Your task to perform on an android device: Search for "energizer triple a" on costco.com, select the first entry, add it to the cart, then select checkout. Image 0: 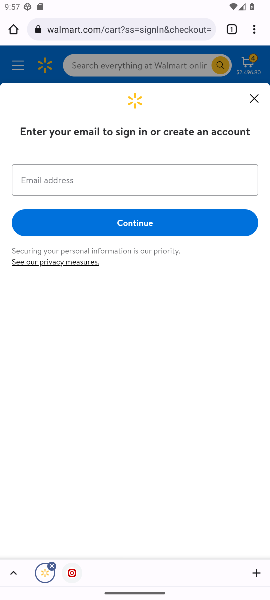
Step 0: click (142, 29)
Your task to perform on an android device: Search for "energizer triple a" on costco.com, select the first entry, add it to the cart, then select checkout. Image 1: 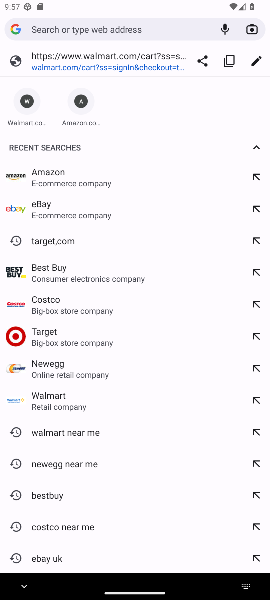
Step 1: click (55, 306)
Your task to perform on an android device: Search for "energizer triple a" on costco.com, select the first entry, add it to the cart, then select checkout. Image 2: 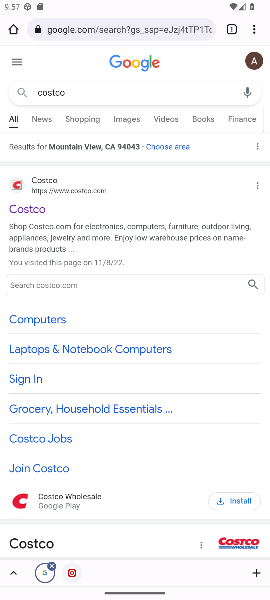
Step 2: click (34, 210)
Your task to perform on an android device: Search for "energizer triple a" on costco.com, select the first entry, add it to the cart, then select checkout. Image 3: 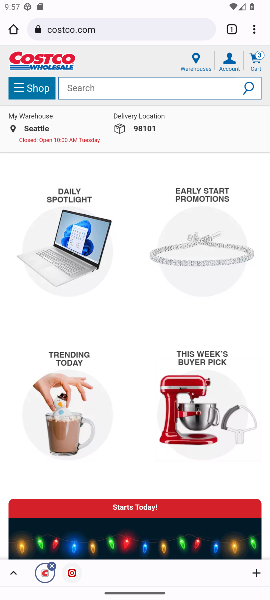
Step 3: click (85, 86)
Your task to perform on an android device: Search for "energizer triple a" on costco.com, select the first entry, add it to the cart, then select checkout. Image 4: 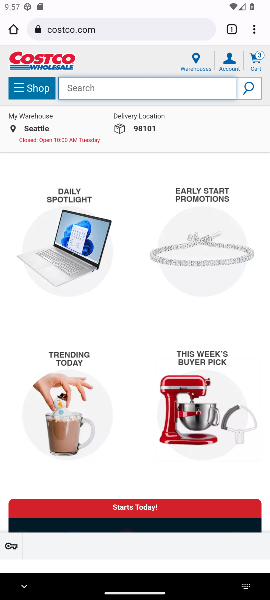
Step 4: type "energizer triple"
Your task to perform on an android device: Search for "energizer triple a" on costco.com, select the first entry, add it to the cart, then select checkout. Image 5: 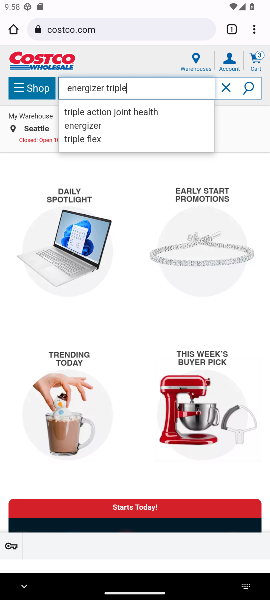
Step 5: click (92, 132)
Your task to perform on an android device: Search for "energizer triple a" on costco.com, select the first entry, add it to the cart, then select checkout. Image 6: 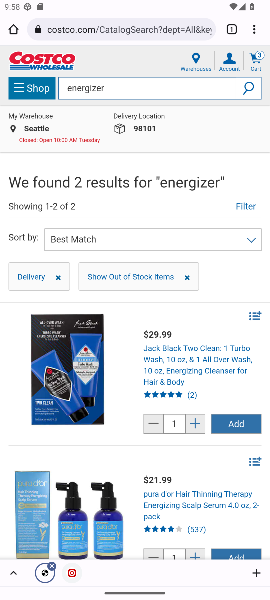
Step 6: drag from (85, 541) to (101, 252)
Your task to perform on an android device: Search for "energizer triple a" on costco.com, select the first entry, add it to the cart, then select checkout. Image 7: 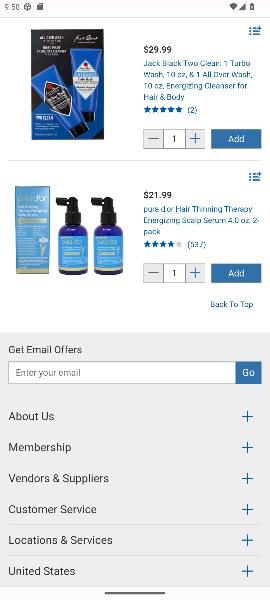
Step 7: click (98, 251)
Your task to perform on an android device: Search for "energizer triple a" on costco.com, select the first entry, add it to the cart, then select checkout. Image 8: 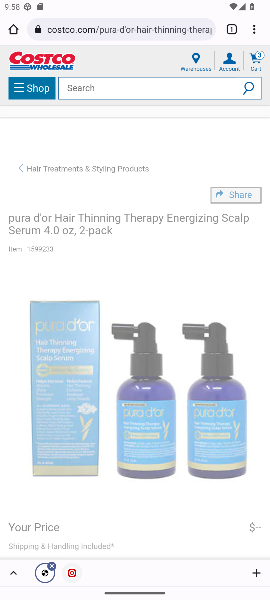
Step 8: click (113, 85)
Your task to perform on an android device: Search for "energizer triple a" on costco.com, select the first entry, add it to the cart, then select checkout. Image 9: 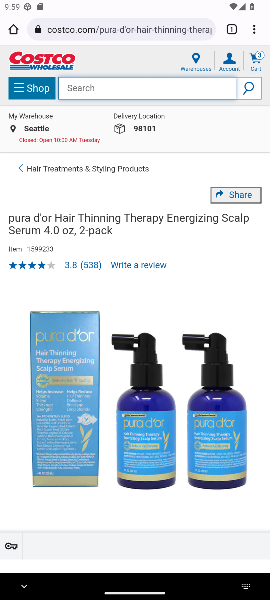
Step 9: type "energizer triple"
Your task to perform on an android device: Search for "energizer triple a" on costco.com, select the first entry, add it to the cart, then select checkout. Image 10: 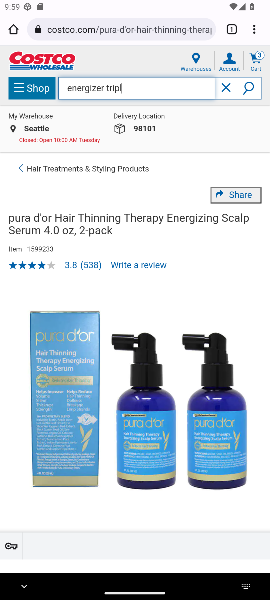
Step 10: type ""
Your task to perform on an android device: Search for "energizer triple a" on costco.com, select the first entry, add it to the cart, then select checkout. Image 11: 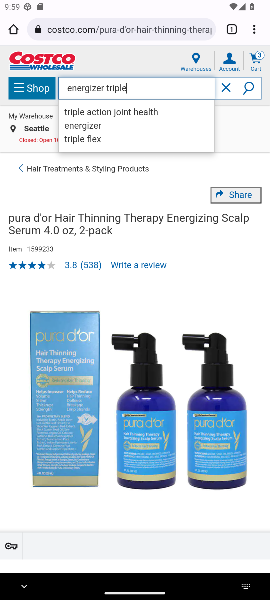
Step 11: click (85, 123)
Your task to perform on an android device: Search for "energizer triple a" on costco.com, select the first entry, add it to the cart, then select checkout. Image 12: 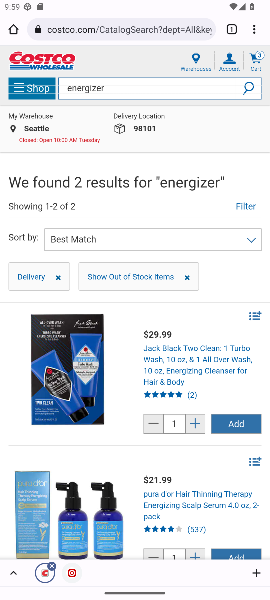
Step 12: drag from (123, 394) to (126, 106)
Your task to perform on an android device: Search for "energizer triple a" on costco.com, select the first entry, add it to the cart, then select checkout. Image 13: 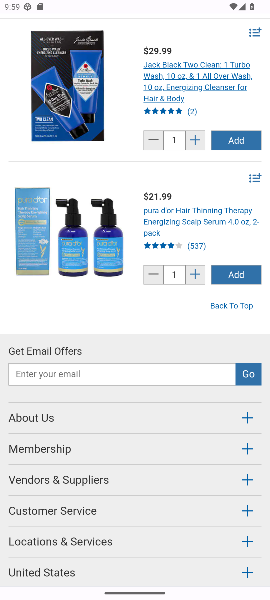
Step 13: drag from (141, 210) to (129, 594)
Your task to perform on an android device: Search for "energizer triple a" on costco.com, select the first entry, add it to the cart, then select checkout. Image 14: 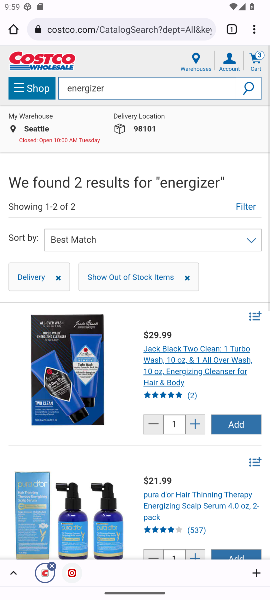
Step 14: click (122, 81)
Your task to perform on an android device: Search for "energizer triple a" on costco.com, select the first entry, add it to the cart, then select checkout. Image 15: 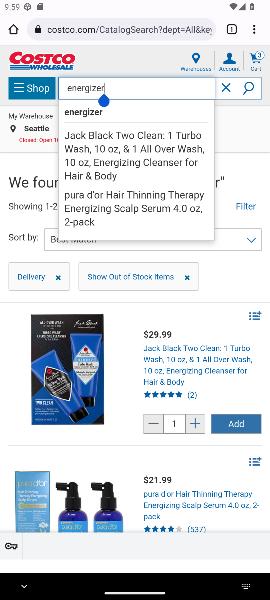
Step 15: click (225, 91)
Your task to perform on an android device: Search for "energizer triple a" on costco.com, select the first entry, add it to the cart, then select checkout. Image 16: 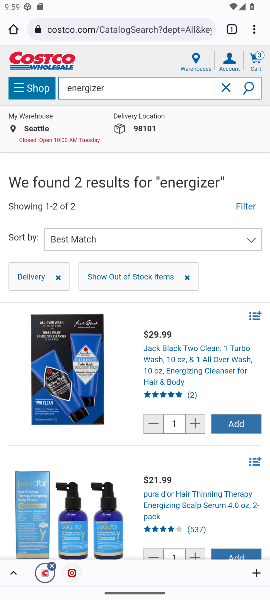
Step 16: click (223, 87)
Your task to perform on an android device: Search for "energizer triple a" on costco.com, select the first entry, add it to the cart, then select checkout. Image 17: 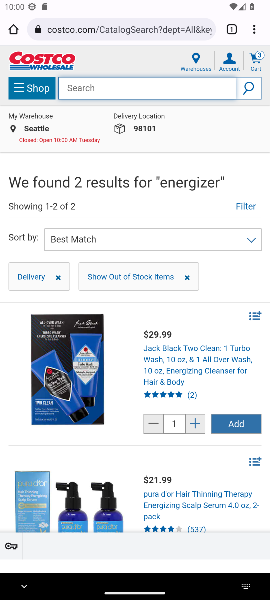
Step 17: type "energizer triple"
Your task to perform on an android device: Search for "energizer triple a" on costco.com, select the first entry, add it to the cart, then select checkout. Image 18: 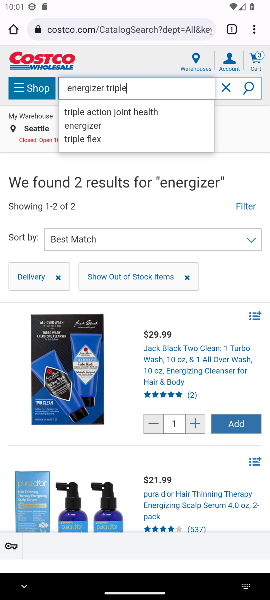
Step 18: click (194, 351)
Your task to perform on an android device: Search for "energizer triple a" on costco.com, select the first entry, add it to the cart, then select checkout. Image 19: 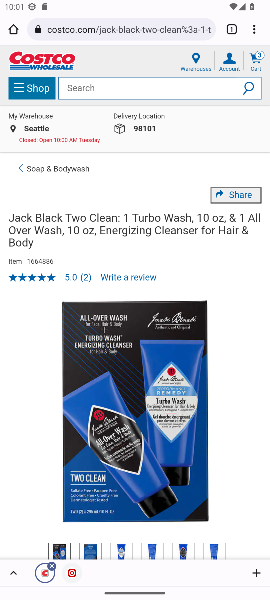
Step 19: drag from (157, 418) to (169, 225)
Your task to perform on an android device: Search for "energizer triple a" on costco.com, select the first entry, add it to the cart, then select checkout. Image 20: 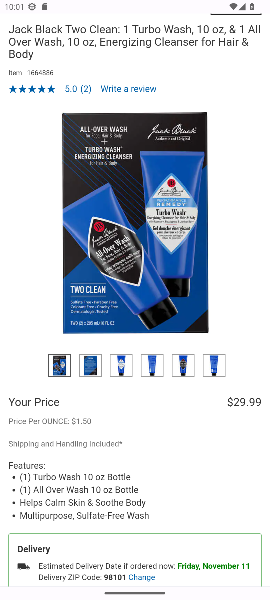
Step 20: drag from (140, 416) to (143, 29)
Your task to perform on an android device: Search for "energizer triple a" on costco.com, select the first entry, add it to the cart, then select checkout. Image 21: 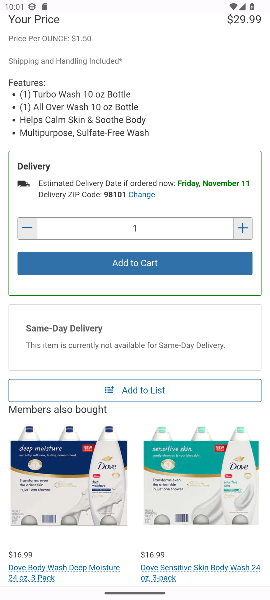
Step 21: click (144, 260)
Your task to perform on an android device: Search for "energizer triple a" on costco.com, select the first entry, add it to the cart, then select checkout. Image 22: 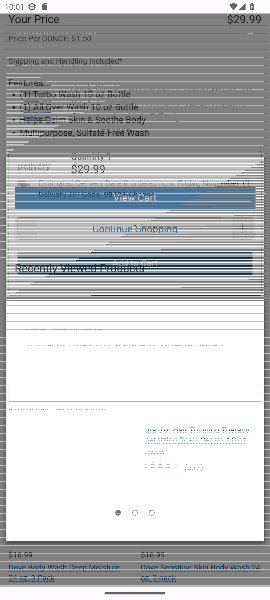
Step 22: click (130, 201)
Your task to perform on an android device: Search for "energizer triple a" on costco.com, select the first entry, add it to the cart, then select checkout. Image 23: 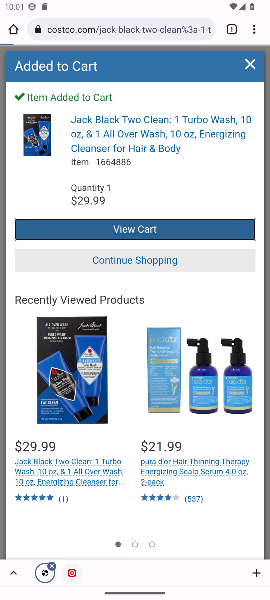
Step 23: click (134, 228)
Your task to perform on an android device: Search for "energizer triple a" on costco.com, select the first entry, add it to the cart, then select checkout. Image 24: 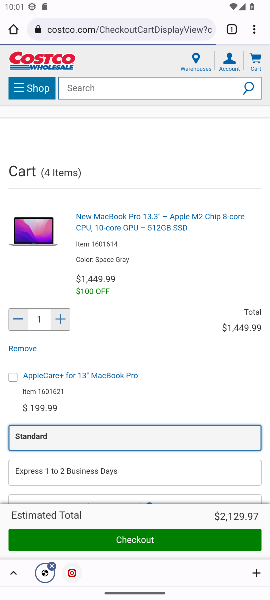
Step 24: click (134, 228)
Your task to perform on an android device: Search for "energizer triple a" on costco.com, select the first entry, add it to the cart, then select checkout. Image 25: 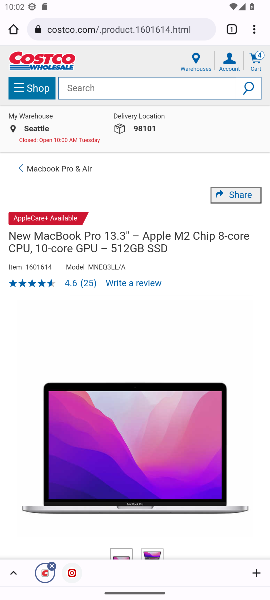
Step 25: drag from (154, 450) to (154, 277)
Your task to perform on an android device: Search for "energizer triple a" on costco.com, select the first entry, add it to the cart, then select checkout. Image 26: 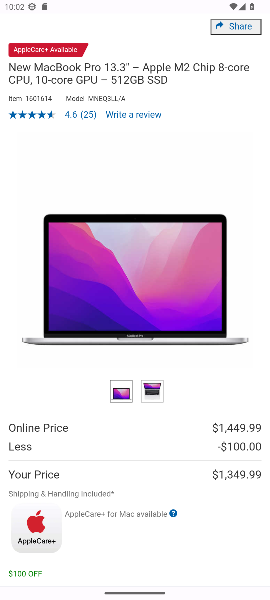
Step 26: drag from (104, 476) to (154, 127)
Your task to perform on an android device: Search for "energizer triple a" on costco.com, select the first entry, add it to the cart, then select checkout. Image 27: 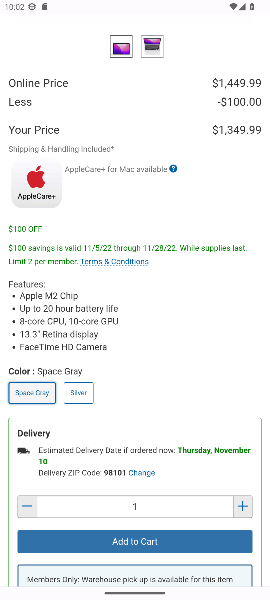
Step 27: click (150, 539)
Your task to perform on an android device: Search for "energizer triple a" on costco.com, select the first entry, add it to the cart, then select checkout. Image 28: 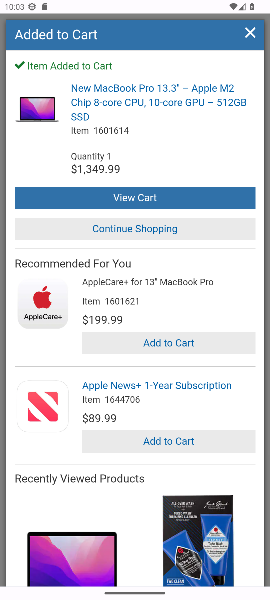
Step 28: click (136, 197)
Your task to perform on an android device: Search for "energizer triple a" on costco.com, select the first entry, add it to the cart, then select checkout. Image 29: 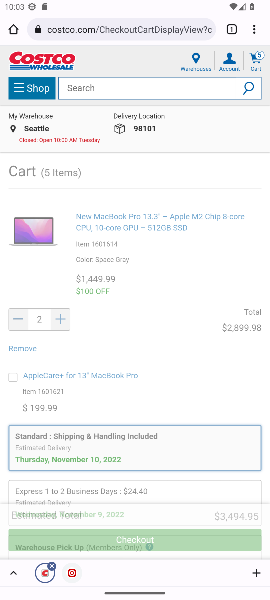
Step 29: click (112, 540)
Your task to perform on an android device: Search for "energizer triple a" on costco.com, select the first entry, add it to the cart, then select checkout. Image 30: 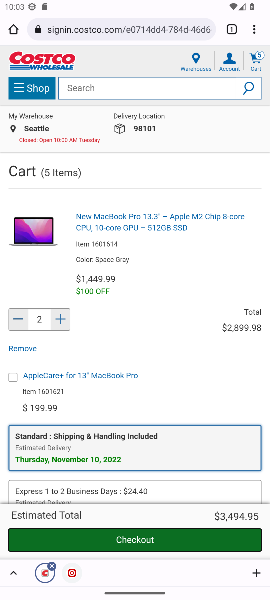
Step 30: click (141, 538)
Your task to perform on an android device: Search for "energizer triple a" on costco.com, select the first entry, add it to the cart, then select checkout. Image 31: 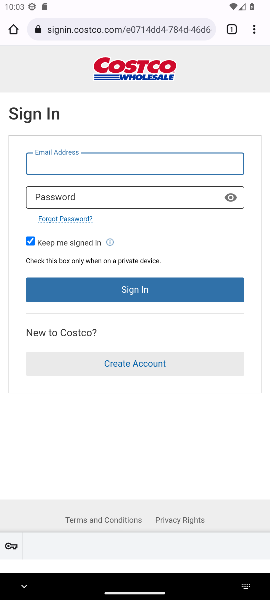
Step 31: task complete